Your task to perform on an android device: toggle notification dots Image 0: 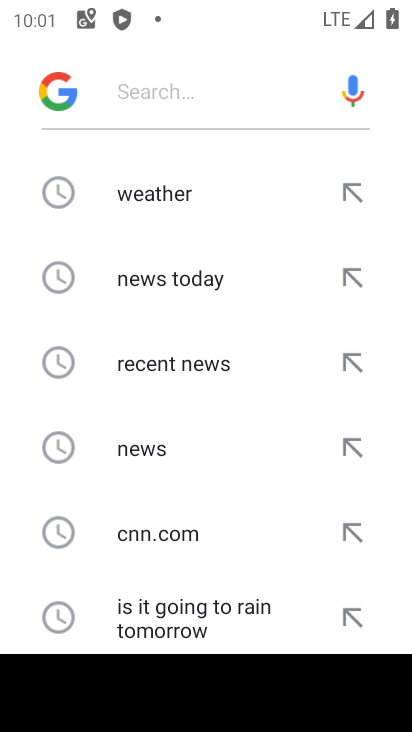
Step 0: press home button
Your task to perform on an android device: toggle notification dots Image 1: 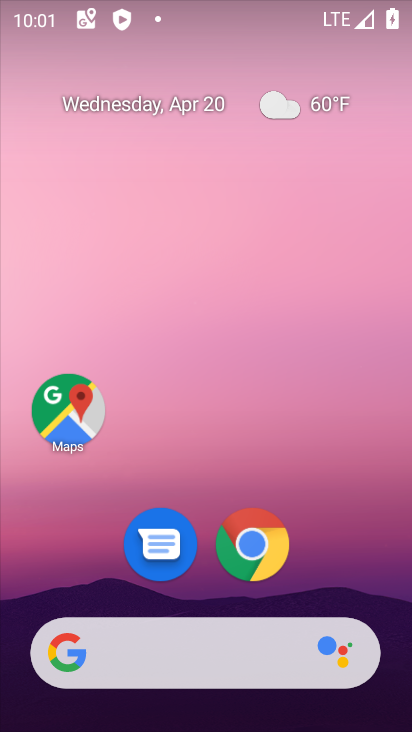
Step 1: drag from (352, 567) to (275, 270)
Your task to perform on an android device: toggle notification dots Image 2: 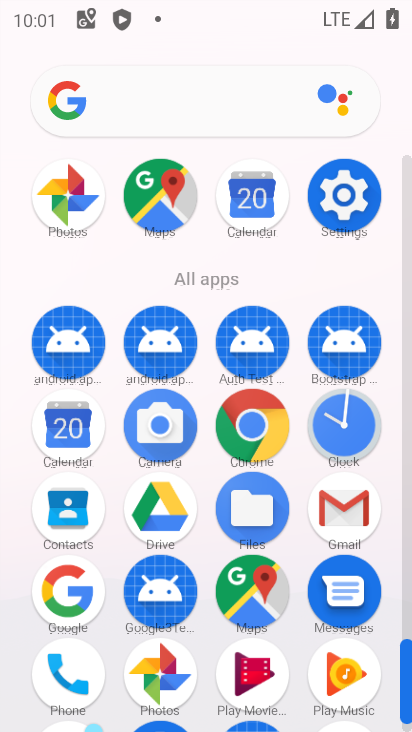
Step 2: click (349, 209)
Your task to perform on an android device: toggle notification dots Image 3: 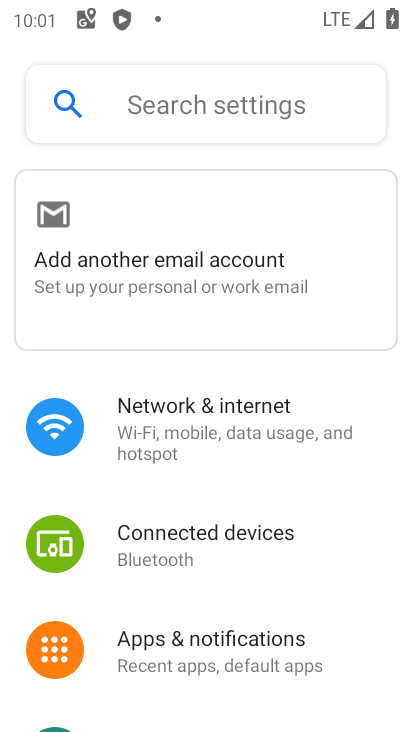
Step 3: click (294, 651)
Your task to perform on an android device: toggle notification dots Image 4: 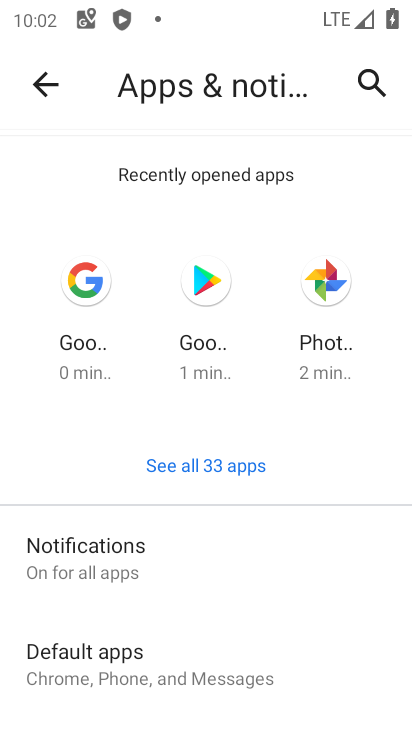
Step 4: click (253, 560)
Your task to perform on an android device: toggle notification dots Image 5: 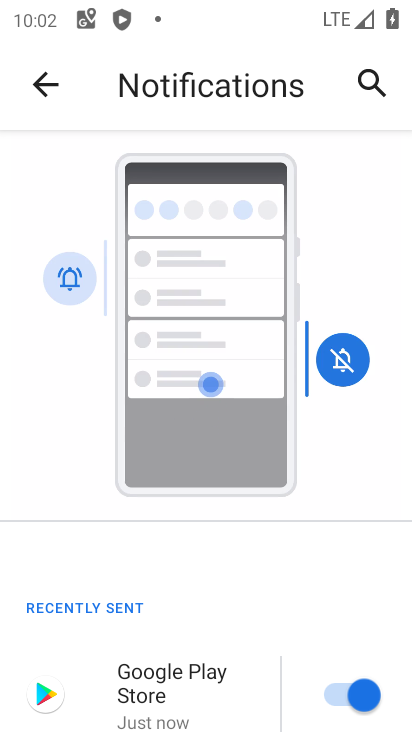
Step 5: drag from (253, 563) to (193, 46)
Your task to perform on an android device: toggle notification dots Image 6: 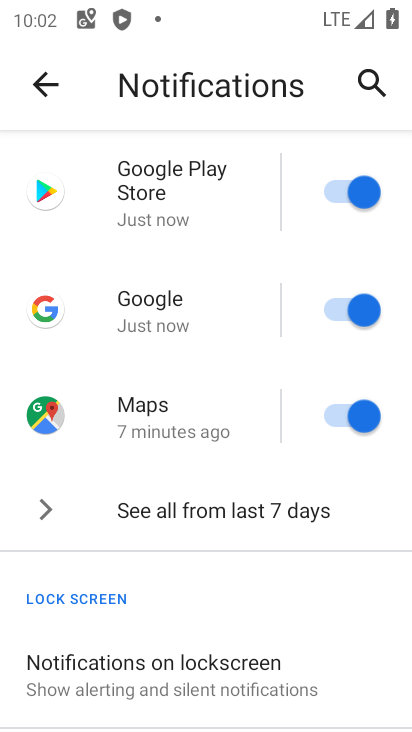
Step 6: drag from (240, 611) to (225, 291)
Your task to perform on an android device: toggle notification dots Image 7: 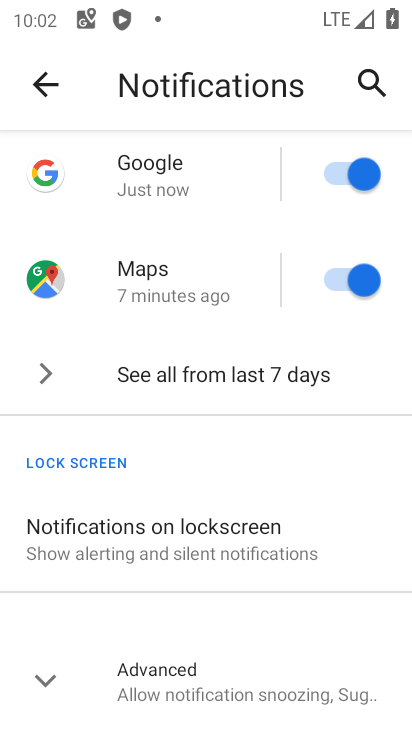
Step 7: click (270, 694)
Your task to perform on an android device: toggle notification dots Image 8: 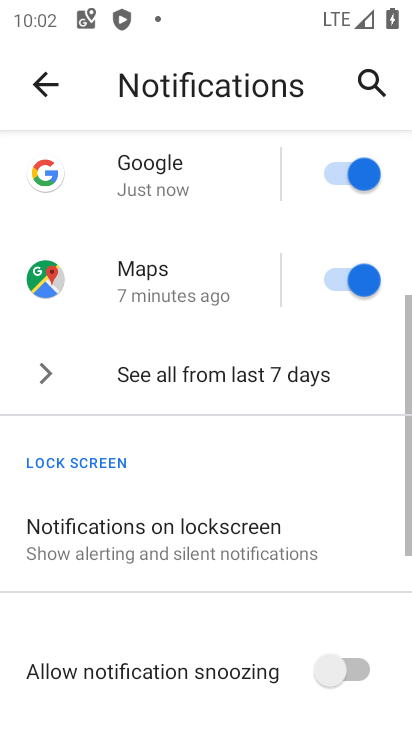
Step 8: drag from (256, 622) to (228, 249)
Your task to perform on an android device: toggle notification dots Image 9: 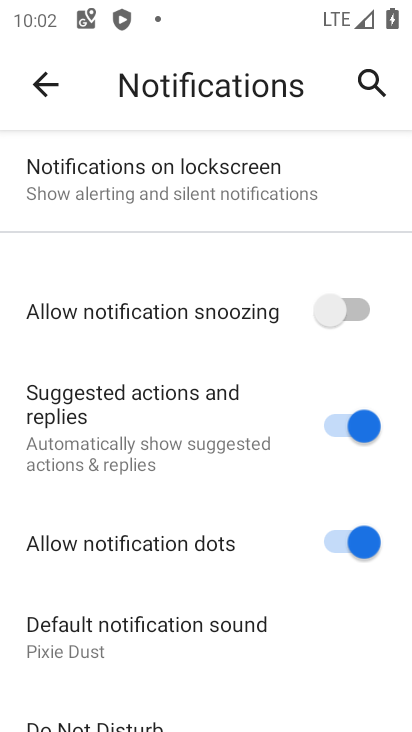
Step 9: click (359, 551)
Your task to perform on an android device: toggle notification dots Image 10: 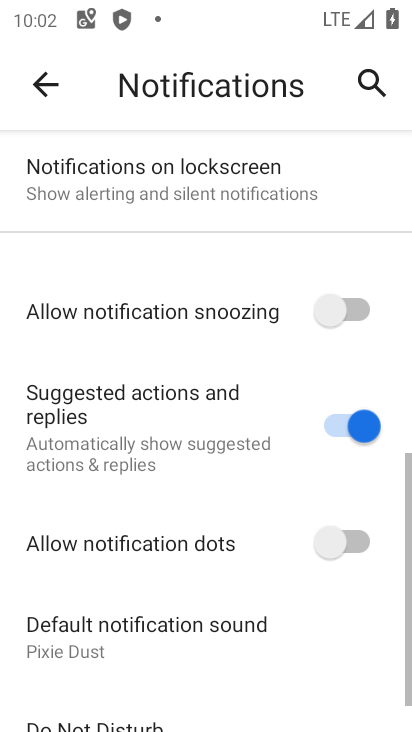
Step 10: task complete